Your task to perform on an android device: open sync settings in chrome Image 0: 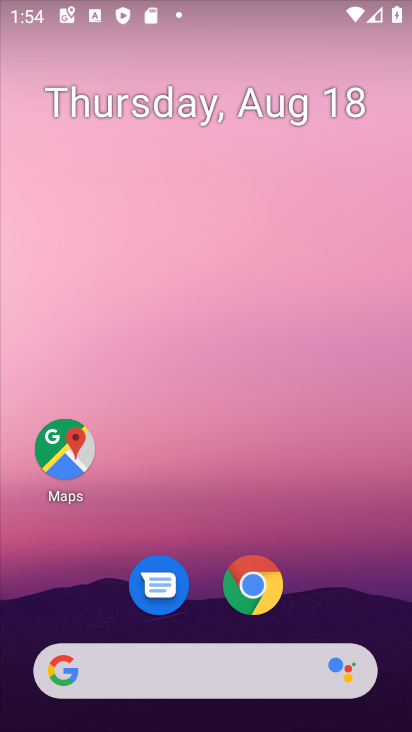
Step 0: click (253, 580)
Your task to perform on an android device: open sync settings in chrome Image 1: 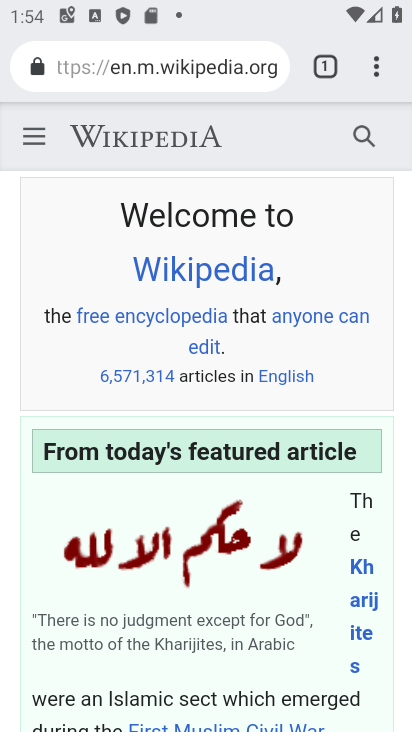
Step 1: click (373, 65)
Your task to perform on an android device: open sync settings in chrome Image 2: 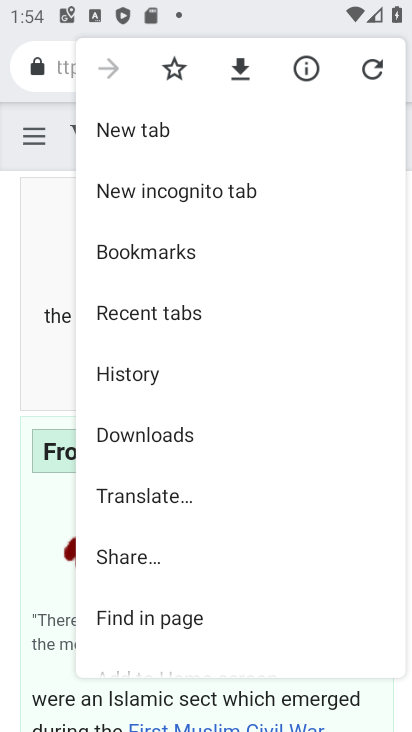
Step 2: drag from (224, 544) to (263, 152)
Your task to perform on an android device: open sync settings in chrome Image 3: 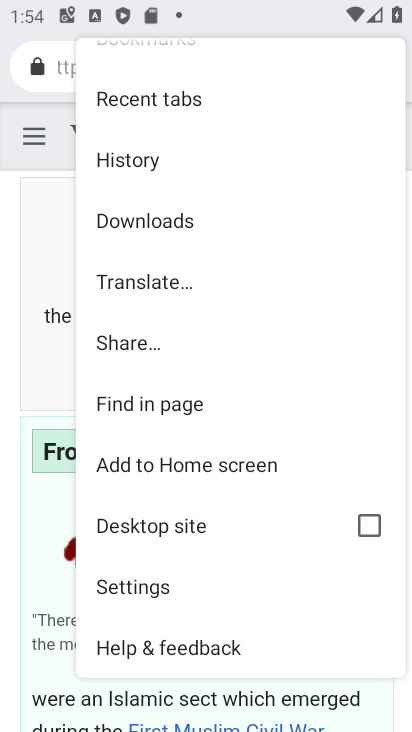
Step 3: click (145, 590)
Your task to perform on an android device: open sync settings in chrome Image 4: 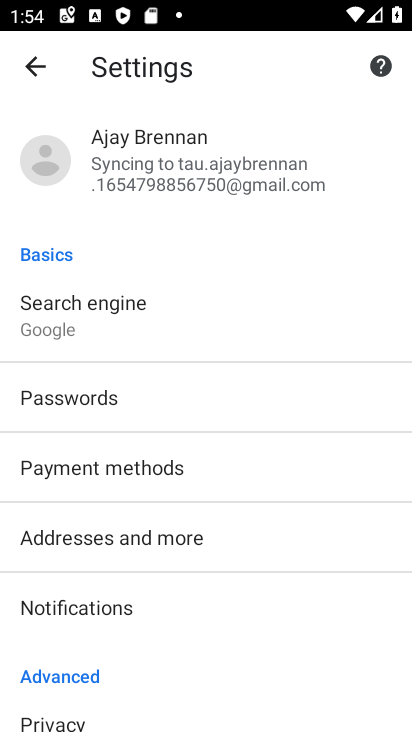
Step 4: click (217, 152)
Your task to perform on an android device: open sync settings in chrome Image 5: 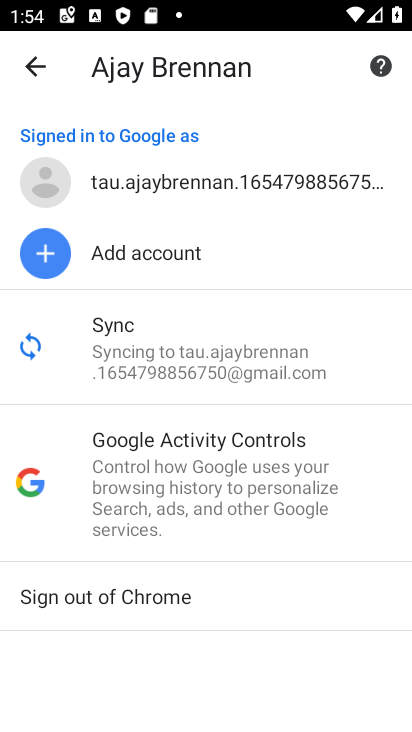
Step 5: click (213, 353)
Your task to perform on an android device: open sync settings in chrome Image 6: 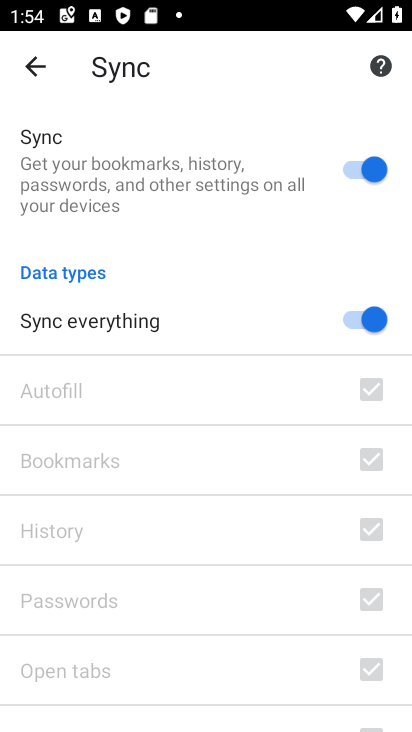
Step 6: task complete